Your task to perform on an android device: open chrome privacy settings Image 0: 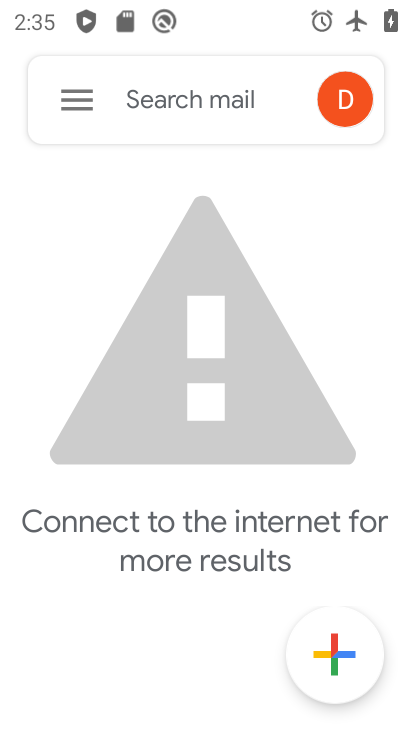
Step 0: press home button
Your task to perform on an android device: open chrome privacy settings Image 1: 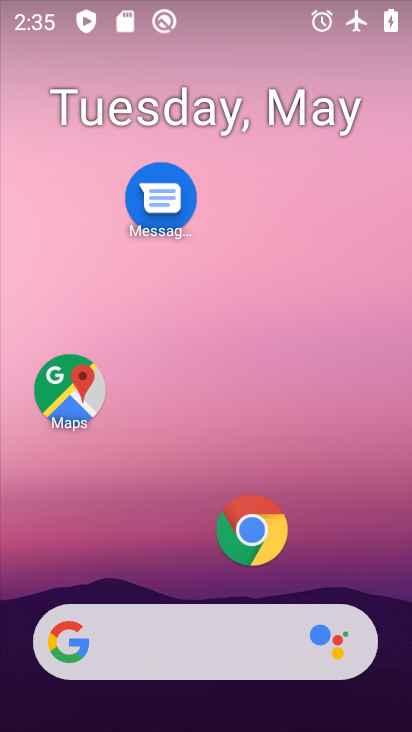
Step 1: click (250, 529)
Your task to perform on an android device: open chrome privacy settings Image 2: 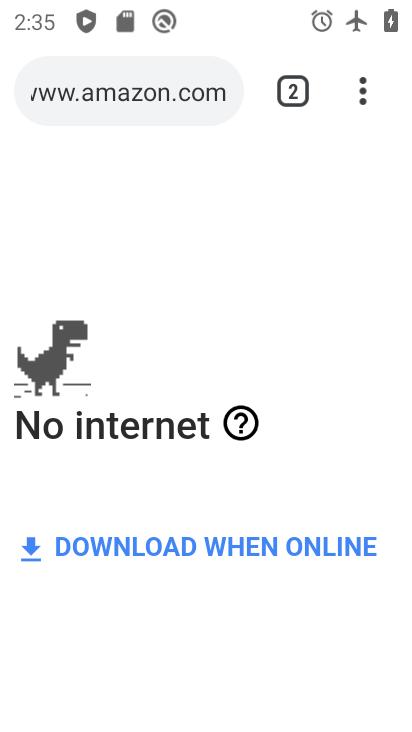
Step 2: drag from (372, 95) to (136, 543)
Your task to perform on an android device: open chrome privacy settings Image 3: 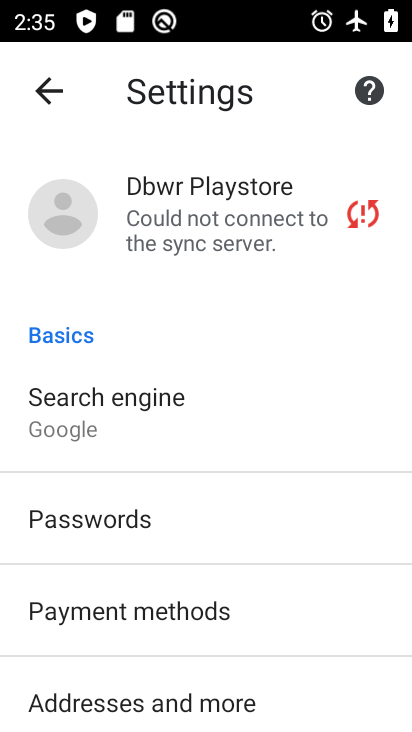
Step 3: drag from (184, 592) to (283, 288)
Your task to perform on an android device: open chrome privacy settings Image 4: 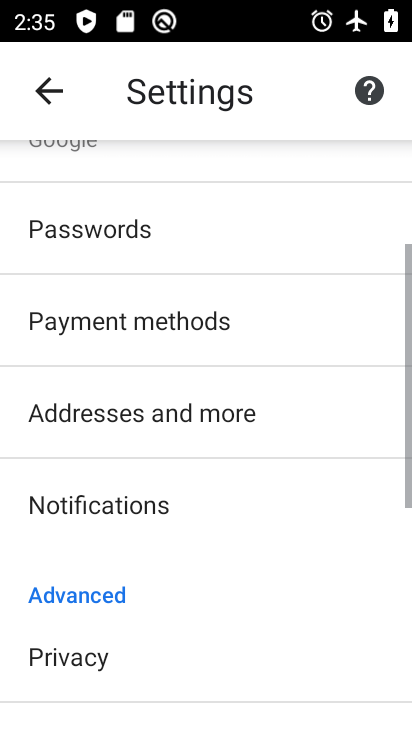
Step 4: drag from (219, 599) to (241, 422)
Your task to perform on an android device: open chrome privacy settings Image 5: 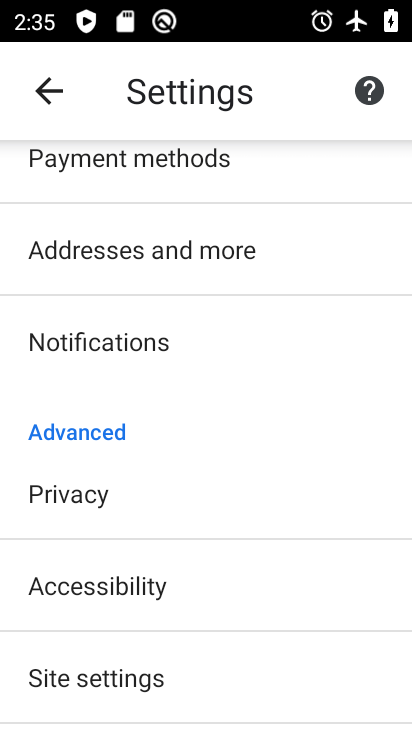
Step 5: click (111, 490)
Your task to perform on an android device: open chrome privacy settings Image 6: 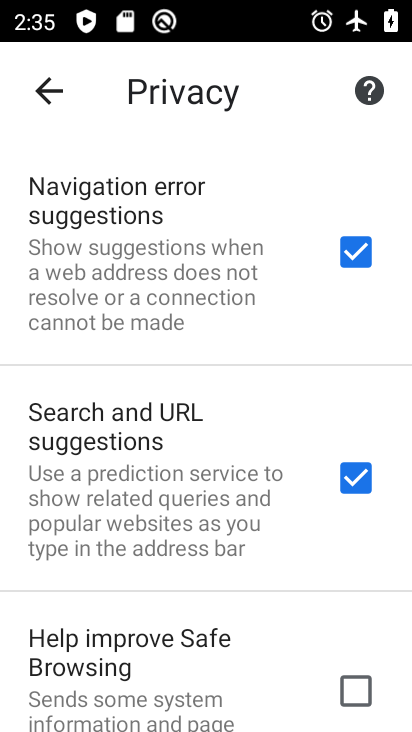
Step 6: task complete